Your task to perform on an android device: What's on my calendar today? Image 0: 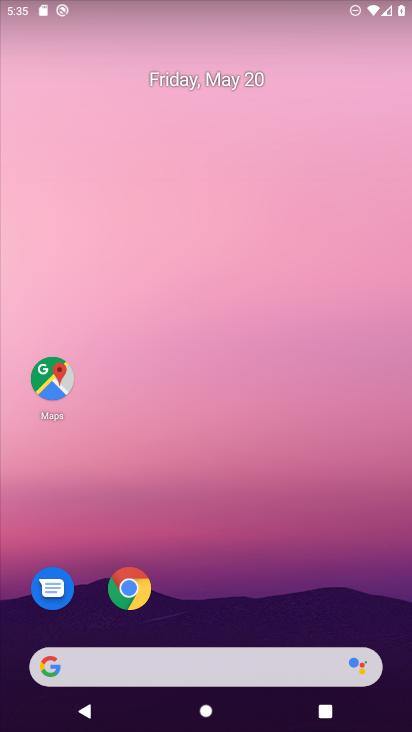
Step 0: drag from (203, 592) to (198, 23)
Your task to perform on an android device: What's on my calendar today? Image 1: 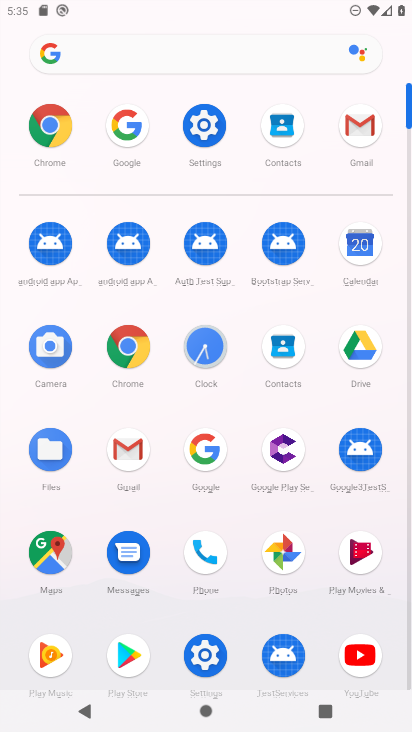
Step 1: click (358, 270)
Your task to perform on an android device: What's on my calendar today? Image 2: 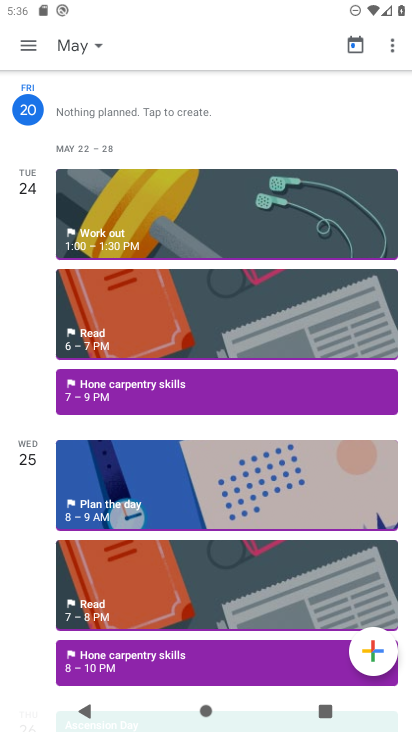
Step 2: task complete